Your task to perform on an android device: turn on airplane mode Image 0: 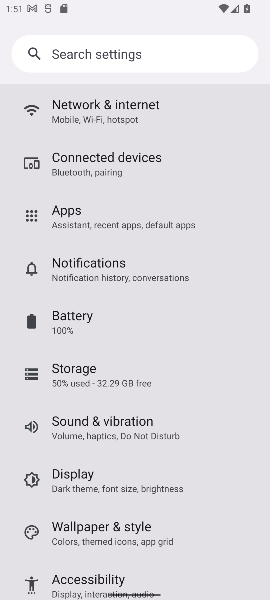
Step 0: press home button
Your task to perform on an android device: turn on airplane mode Image 1: 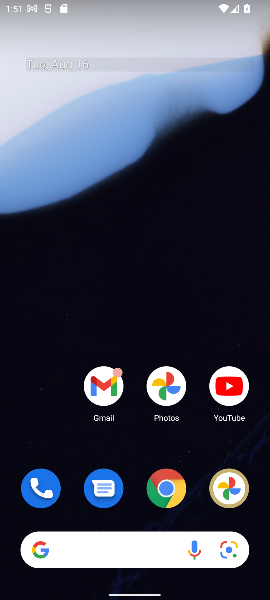
Step 1: drag from (55, 333) to (39, 84)
Your task to perform on an android device: turn on airplane mode Image 2: 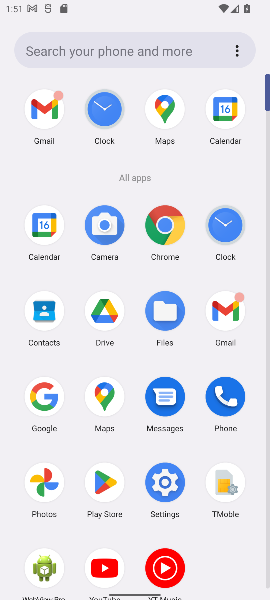
Step 2: click (168, 235)
Your task to perform on an android device: turn on airplane mode Image 3: 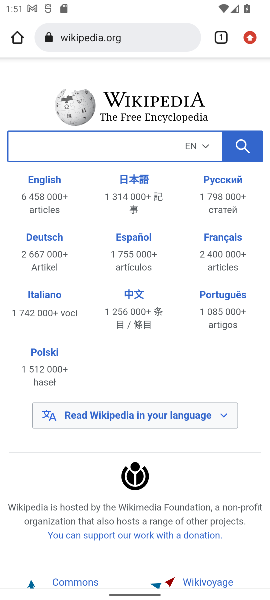
Step 3: click (217, 36)
Your task to perform on an android device: turn on airplane mode Image 4: 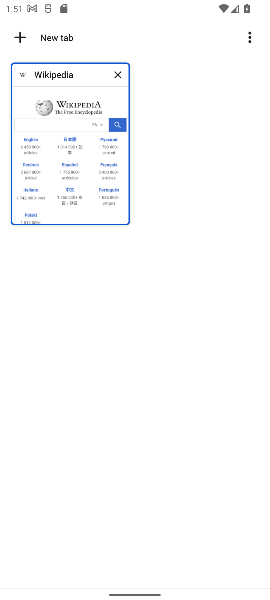
Step 4: click (20, 38)
Your task to perform on an android device: turn on airplane mode Image 5: 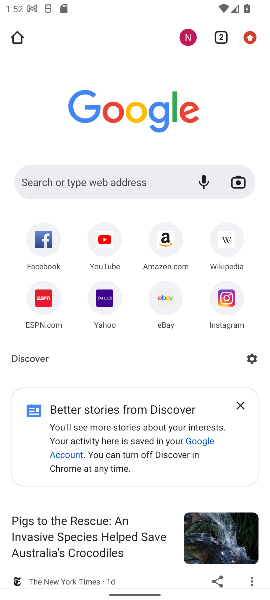
Step 5: task complete